Your task to perform on an android device: Is it going to rain tomorrow? Image 0: 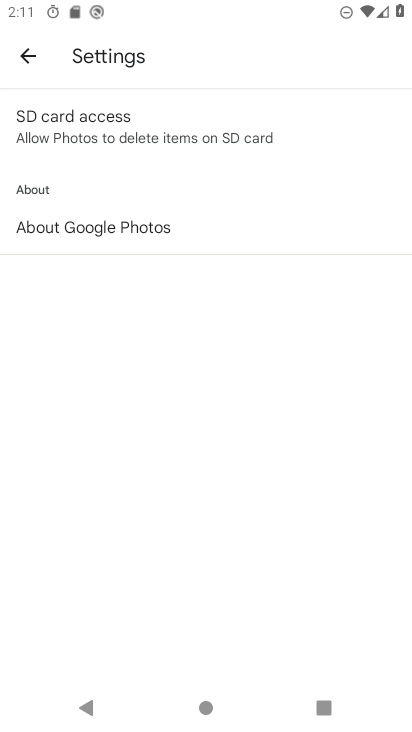
Step 0: press home button
Your task to perform on an android device: Is it going to rain tomorrow? Image 1: 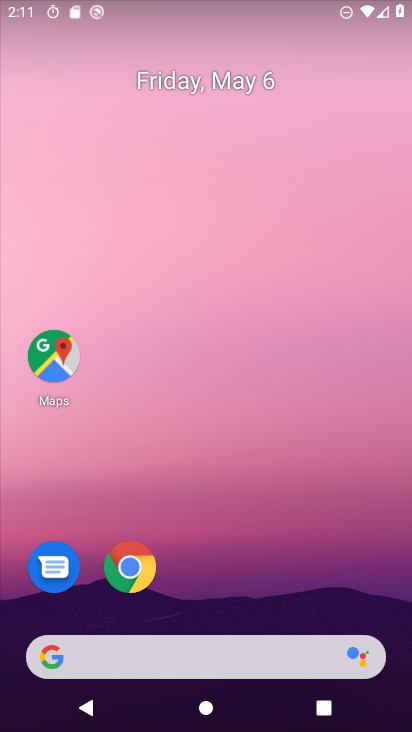
Step 1: drag from (264, 683) to (344, 151)
Your task to perform on an android device: Is it going to rain tomorrow? Image 2: 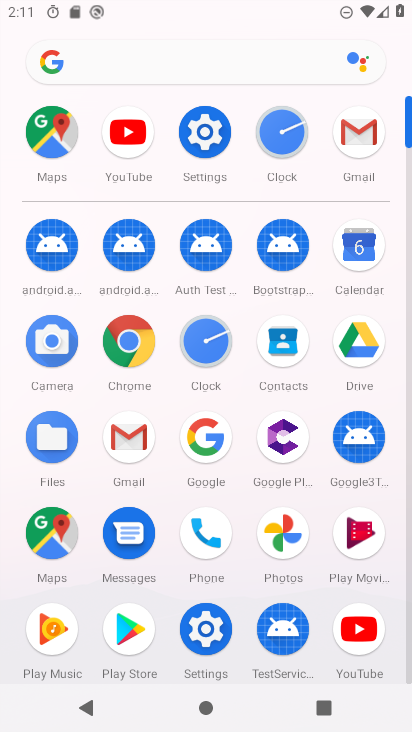
Step 2: click (143, 62)
Your task to perform on an android device: Is it going to rain tomorrow? Image 3: 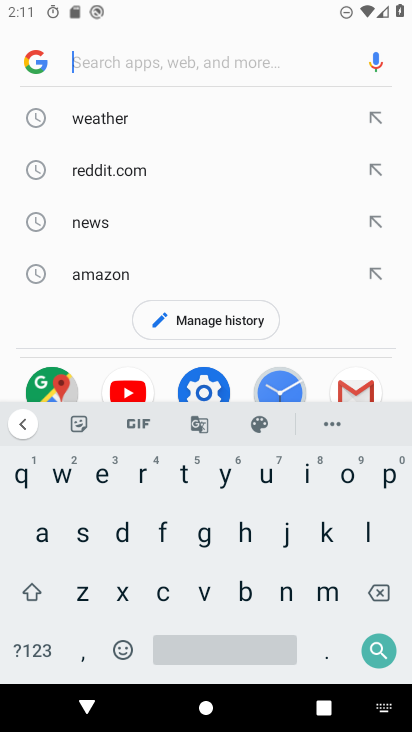
Step 3: click (112, 118)
Your task to perform on an android device: Is it going to rain tomorrow? Image 4: 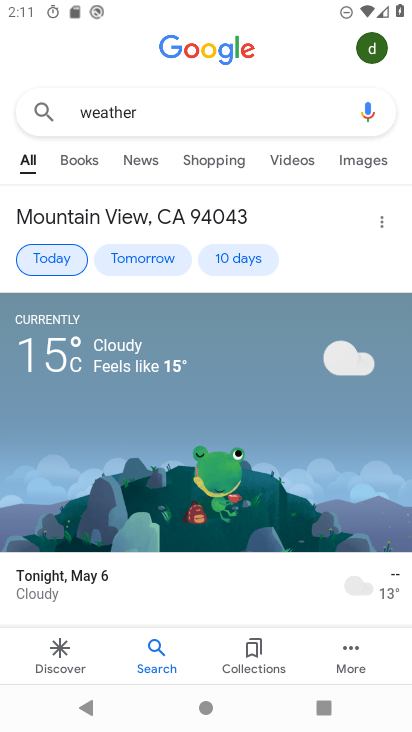
Step 4: click (122, 259)
Your task to perform on an android device: Is it going to rain tomorrow? Image 5: 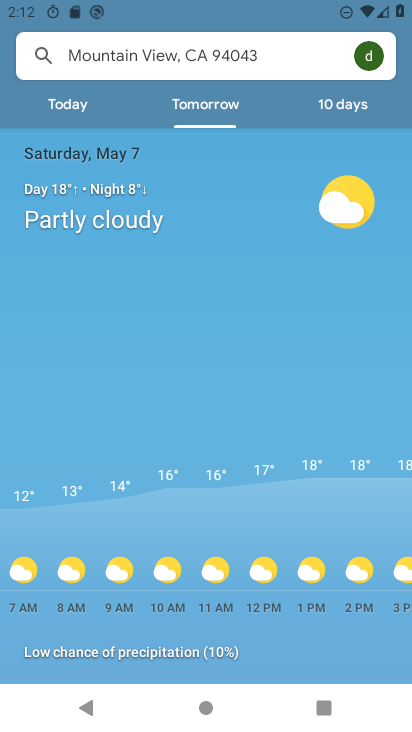
Step 5: task complete